Your task to perform on an android device: Open Google Chrome and open the bookmarks view Image 0: 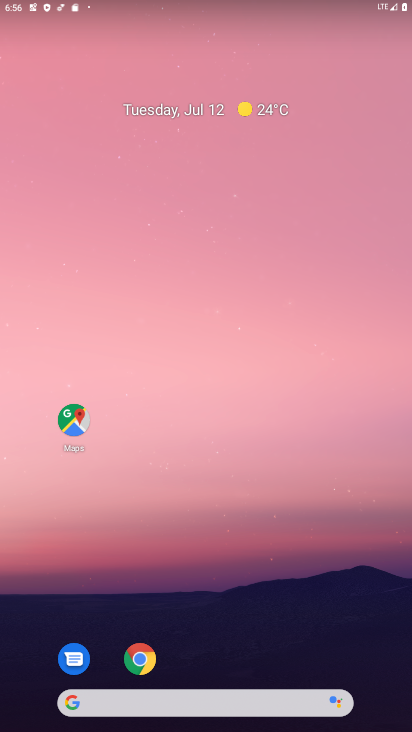
Step 0: drag from (363, 665) to (209, 0)
Your task to perform on an android device: Open Google Chrome and open the bookmarks view Image 1: 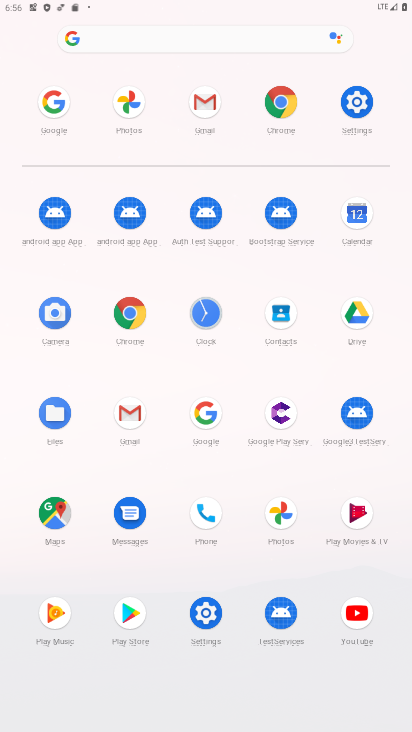
Step 1: click (273, 108)
Your task to perform on an android device: Open Google Chrome and open the bookmarks view Image 2: 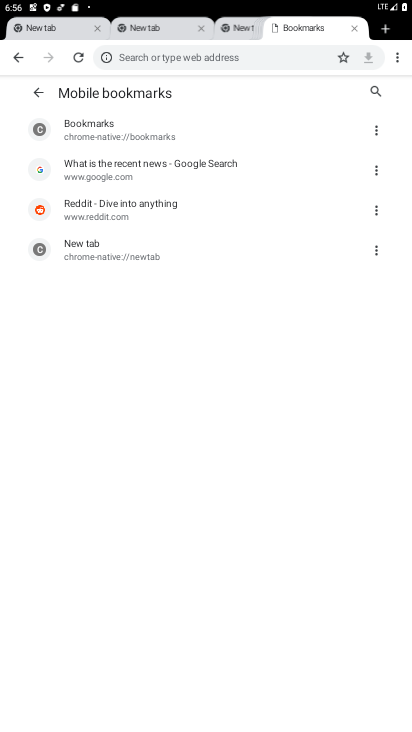
Step 2: click (398, 55)
Your task to perform on an android device: Open Google Chrome and open the bookmarks view Image 3: 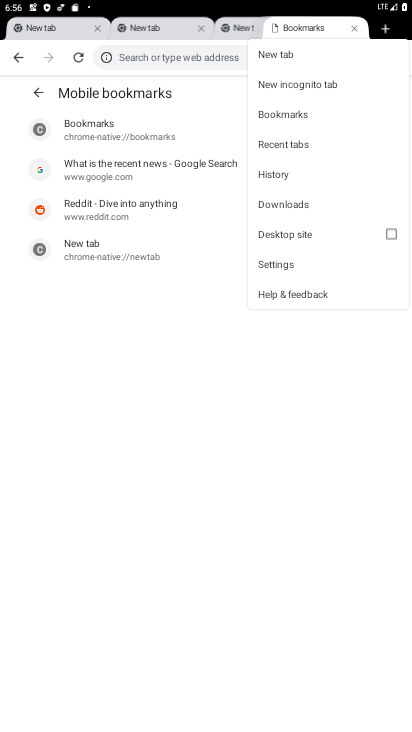
Step 3: click (302, 112)
Your task to perform on an android device: Open Google Chrome and open the bookmarks view Image 4: 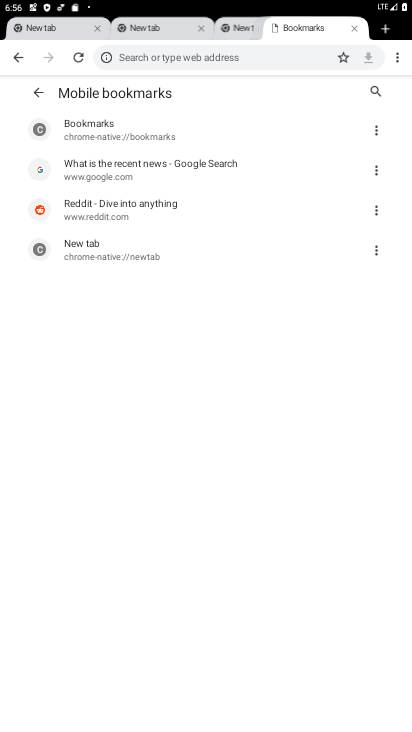
Step 4: task complete